Your task to perform on an android device: turn off airplane mode Image 0: 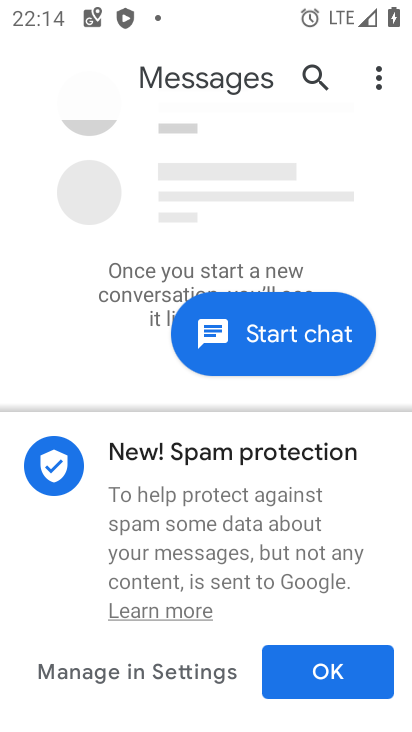
Step 0: press home button
Your task to perform on an android device: turn off airplane mode Image 1: 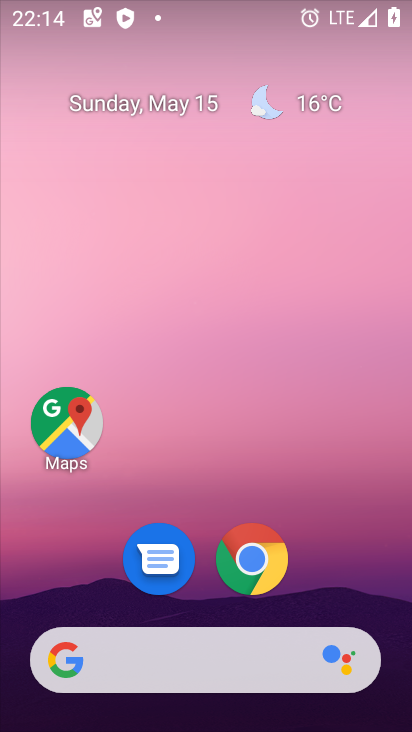
Step 1: drag from (233, 442) to (181, 4)
Your task to perform on an android device: turn off airplane mode Image 2: 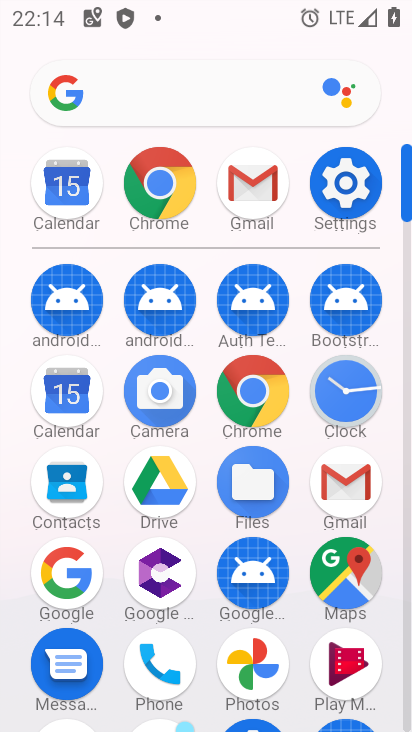
Step 2: click (342, 184)
Your task to perform on an android device: turn off airplane mode Image 3: 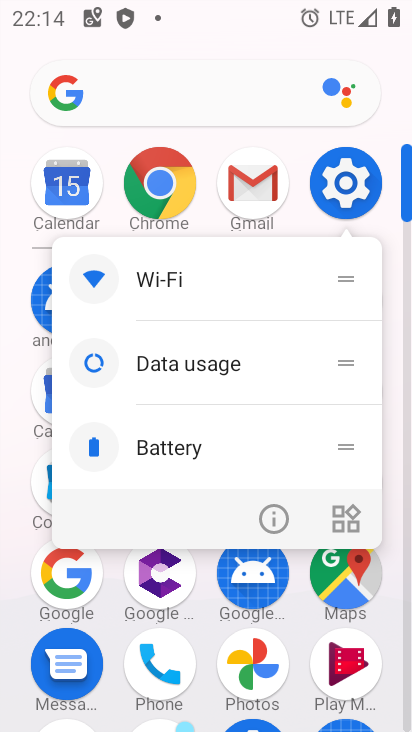
Step 3: click (347, 184)
Your task to perform on an android device: turn off airplane mode Image 4: 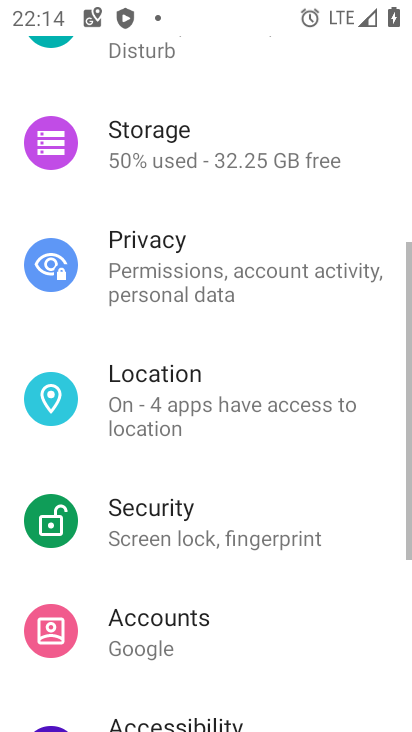
Step 4: click (347, 184)
Your task to perform on an android device: turn off airplane mode Image 5: 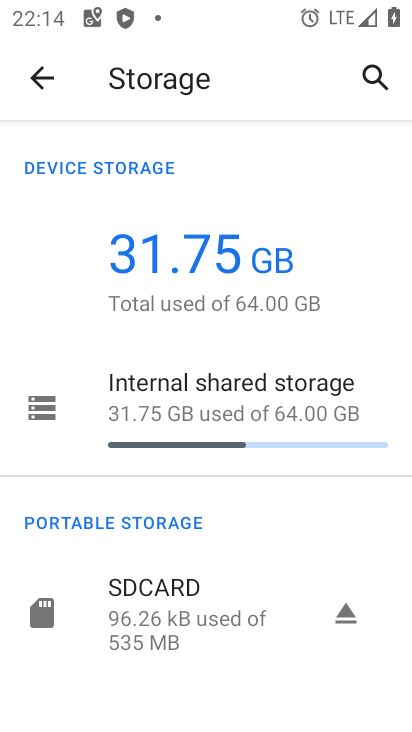
Step 5: click (40, 81)
Your task to perform on an android device: turn off airplane mode Image 6: 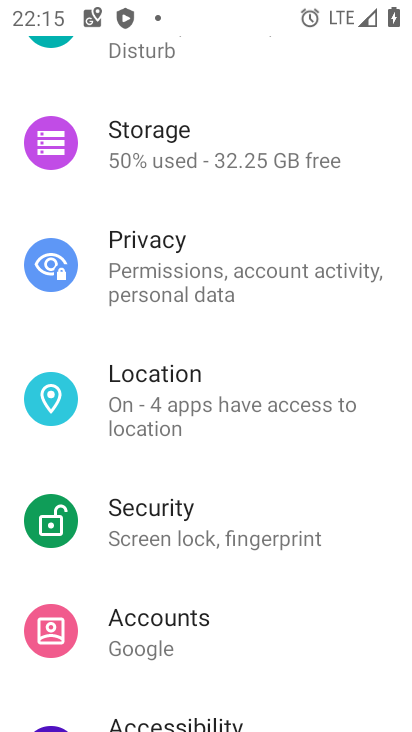
Step 6: drag from (229, 190) to (170, 696)
Your task to perform on an android device: turn off airplane mode Image 7: 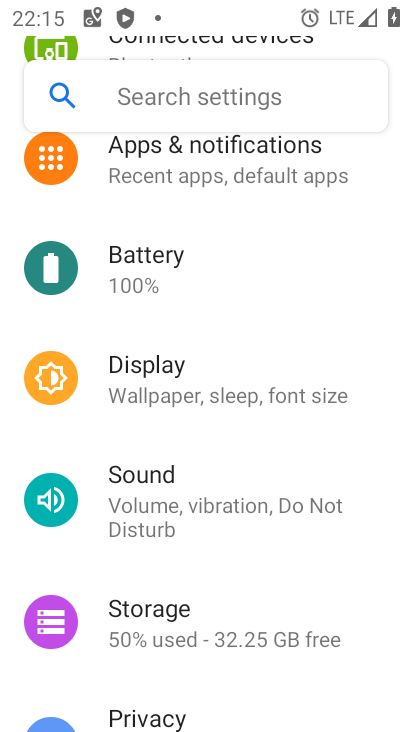
Step 7: drag from (189, 212) to (58, 712)
Your task to perform on an android device: turn off airplane mode Image 8: 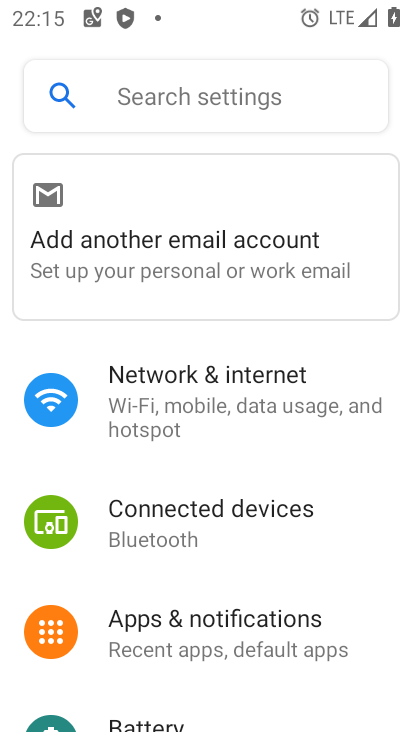
Step 8: click (190, 381)
Your task to perform on an android device: turn off airplane mode Image 9: 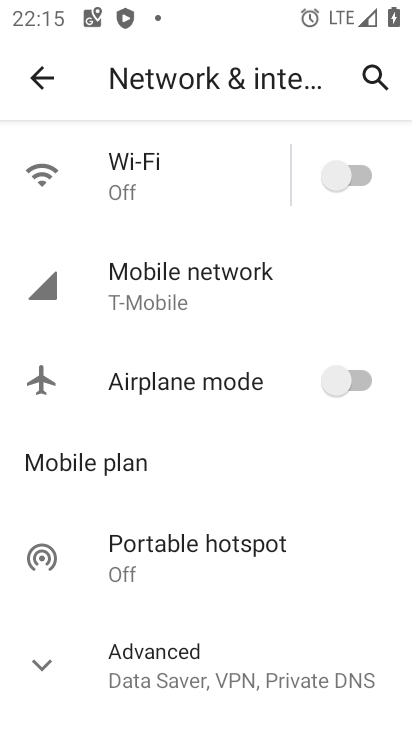
Step 9: task complete